Your task to perform on an android device: Open the map Image 0: 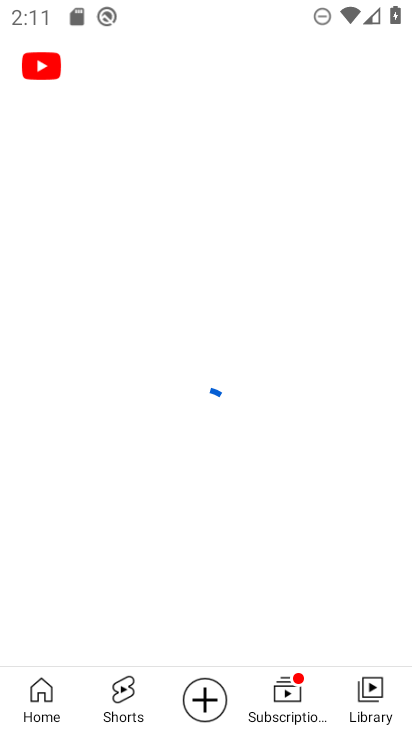
Step 0: click (334, 79)
Your task to perform on an android device: Open the map Image 1: 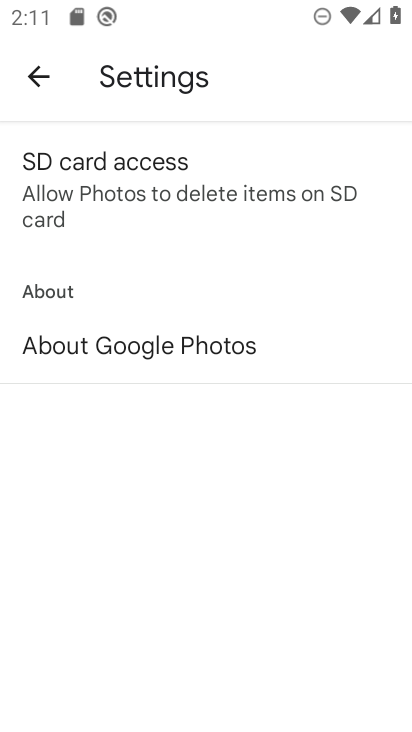
Step 1: press home button
Your task to perform on an android device: Open the map Image 2: 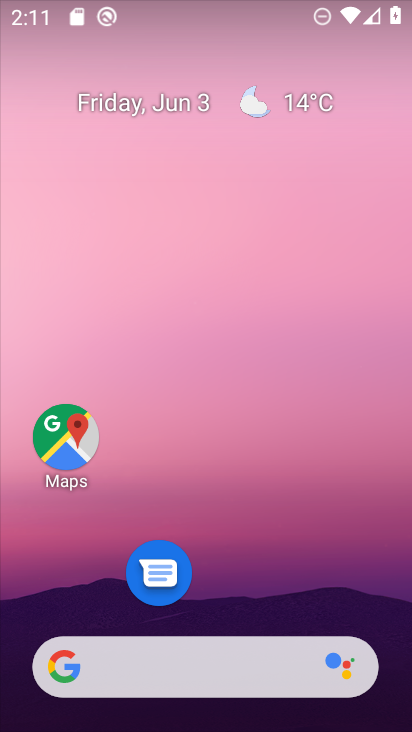
Step 2: drag from (302, 665) to (320, 140)
Your task to perform on an android device: Open the map Image 3: 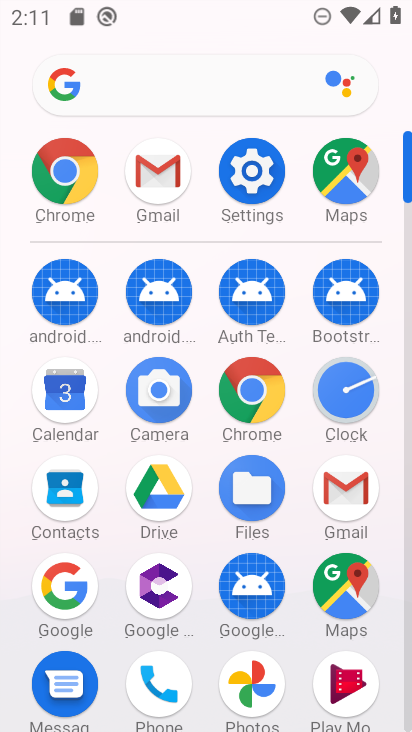
Step 3: click (353, 583)
Your task to perform on an android device: Open the map Image 4: 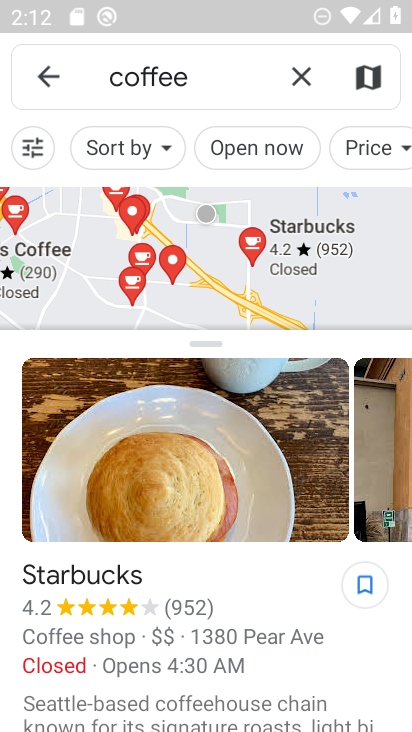
Step 4: press home button
Your task to perform on an android device: Open the map Image 5: 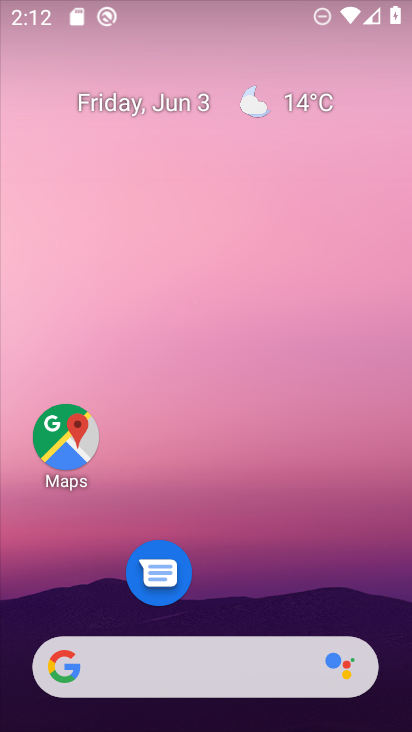
Step 5: drag from (232, 639) to (255, 130)
Your task to perform on an android device: Open the map Image 6: 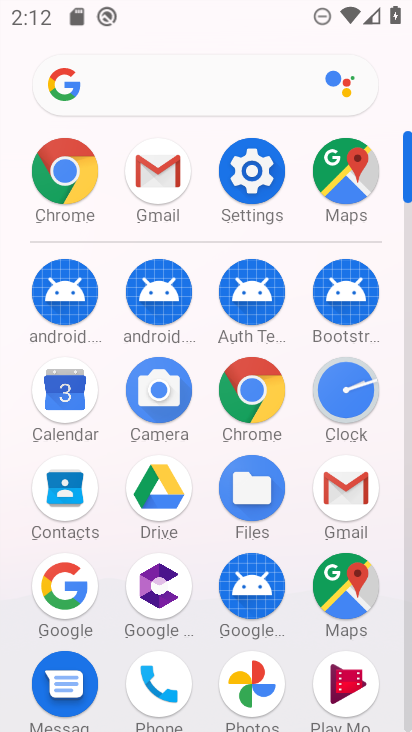
Step 6: click (349, 622)
Your task to perform on an android device: Open the map Image 7: 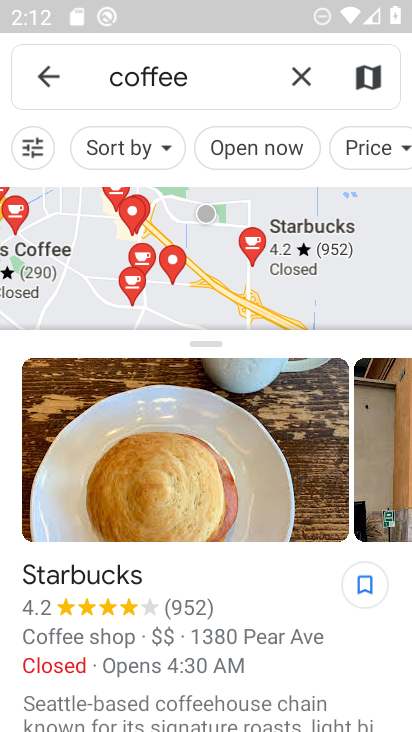
Step 7: task complete